Your task to perform on an android device: find snoozed emails in the gmail app Image 0: 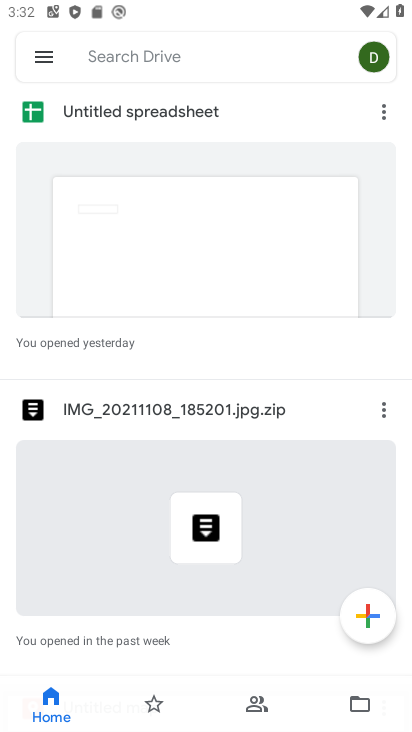
Step 0: press home button
Your task to perform on an android device: find snoozed emails in the gmail app Image 1: 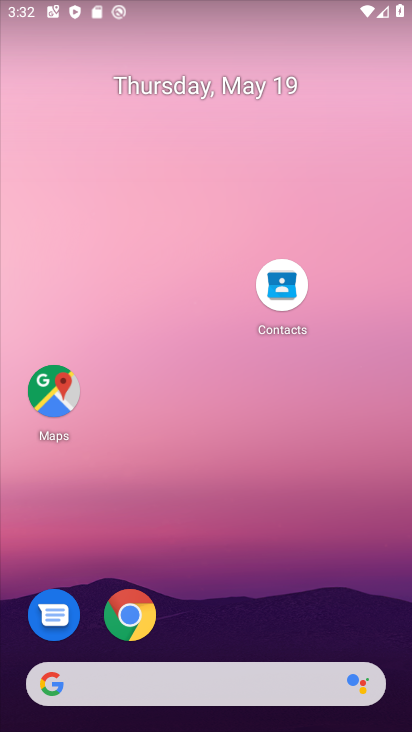
Step 1: drag from (208, 545) to (267, 118)
Your task to perform on an android device: find snoozed emails in the gmail app Image 2: 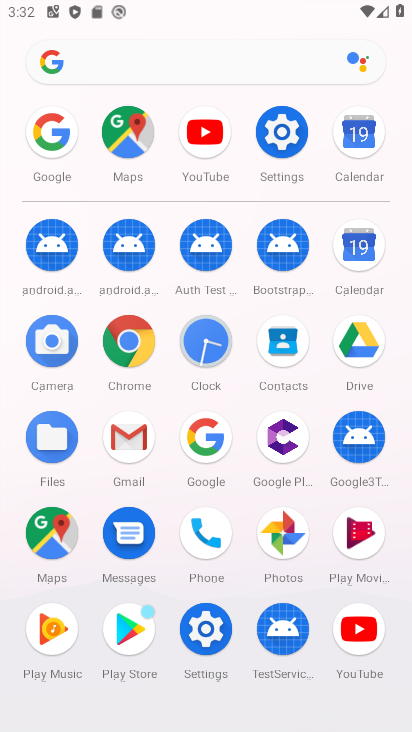
Step 2: click (140, 464)
Your task to perform on an android device: find snoozed emails in the gmail app Image 3: 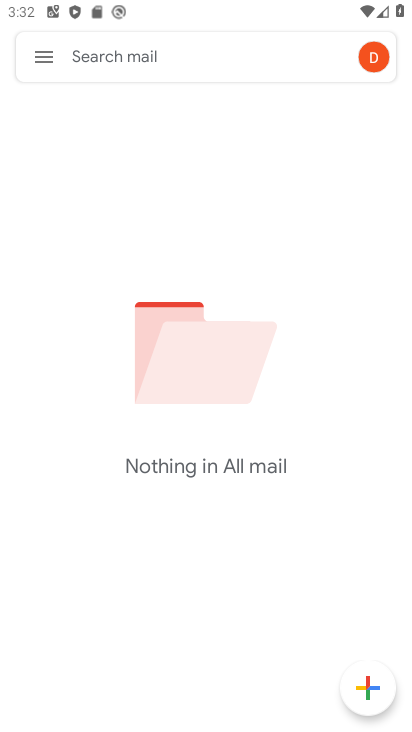
Step 3: click (55, 62)
Your task to perform on an android device: find snoozed emails in the gmail app Image 4: 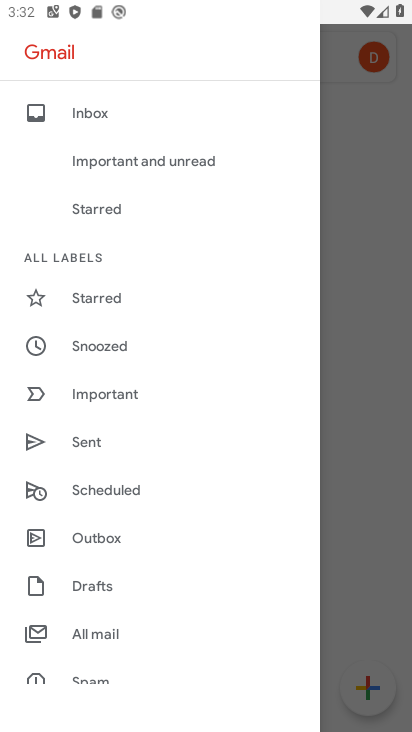
Step 4: drag from (104, 564) to (161, 207)
Your task to perform on an android device: find snoozed emails in the gmail app Image 5: 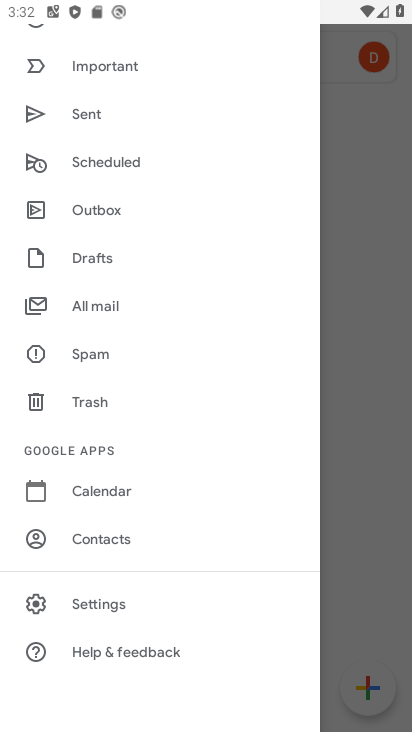
Step 5: drag from (128, 362) to (149, 535)
Your task to perform on an android device: find snoozed emails in the gmail app Image 6: 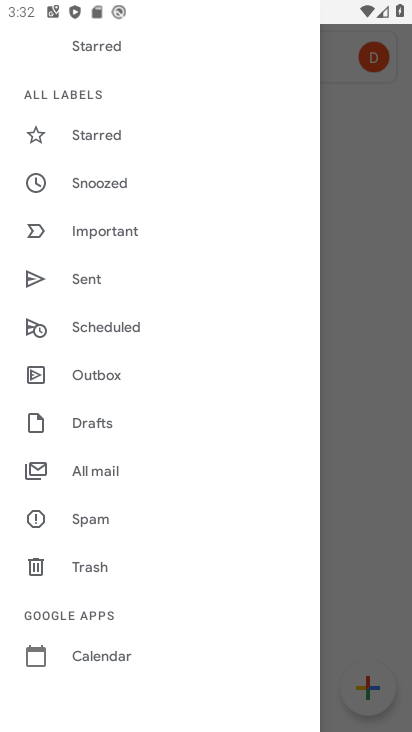
Step 6: click (103, 180)
Your task to perform on an android device: find snoozed emails in the gmail app Image 7: 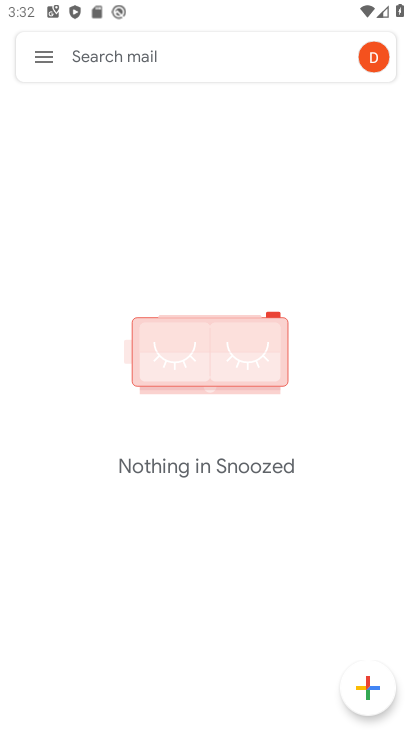
Step 7: task complete